Your task to perform on an android device: toggle sleep mode Image 0: 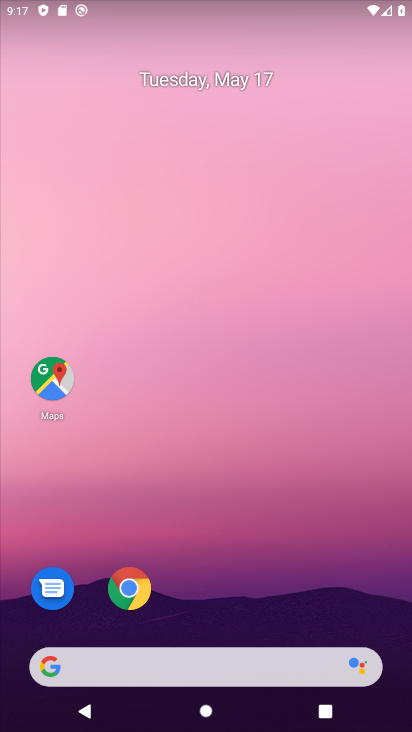
Step 0: drag from (220, 640) to (161, 2)
Your task to perform on an android device: toggle sleep mode Image 1: 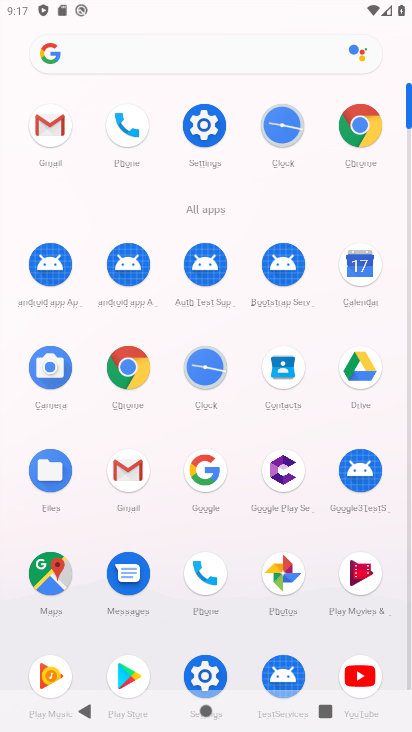
Step 1: click (201, 137)
Your task to perform on an android device: toggle sleep mode Image 2: 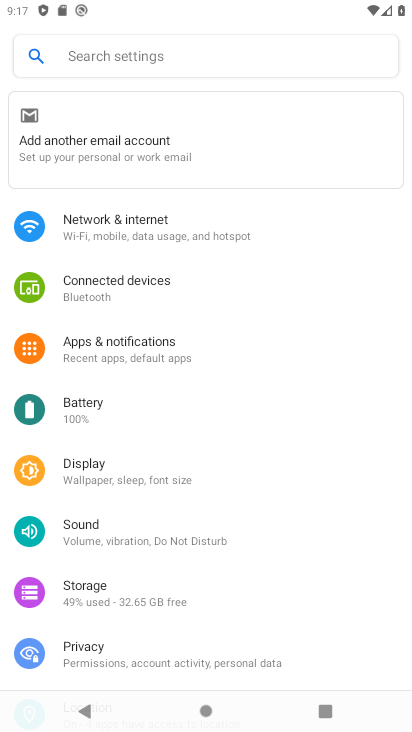
Step 2: click (102, 474)
Your task to perform on an android device: toggle sleep mode Image 3: 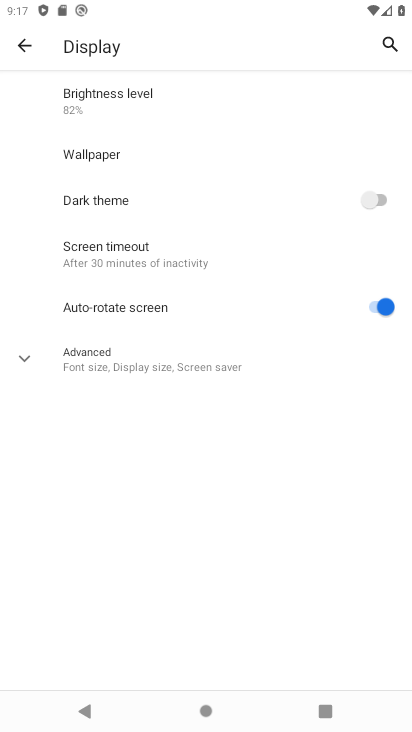
Step 3: click (111, 358)
Your task to perform on an android device: toggle sleep mode Image 4: 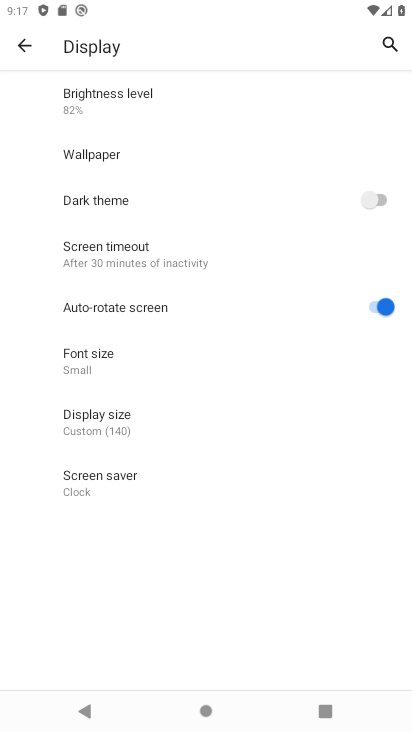
Step 4: task complete